Your task to perform on an android device: Go to Maps Image 0: 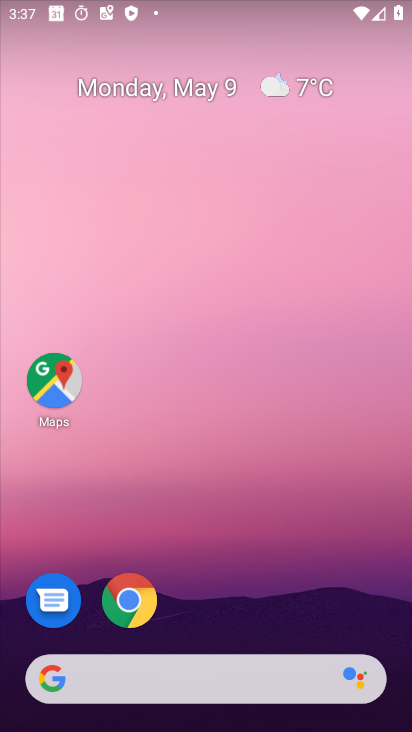
Step 0: drag from (278, 201) to (282, 22)
Your task to perform on an android device: Go to Maps Image 1: 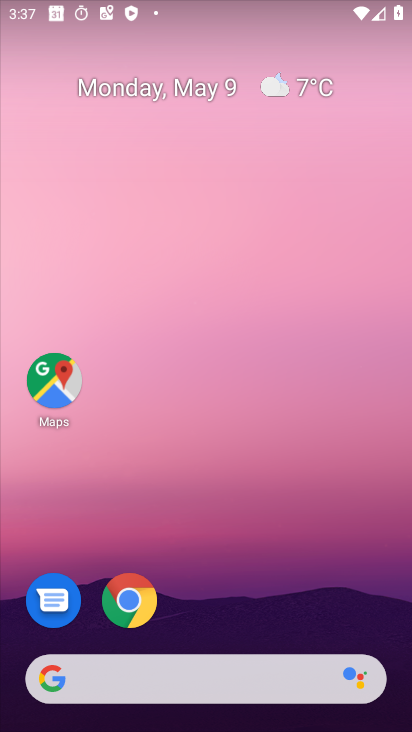
Step 1: drag from (336, 603) to (270, 18)
Your task to perform on an android device: Go to Maps Image 2: 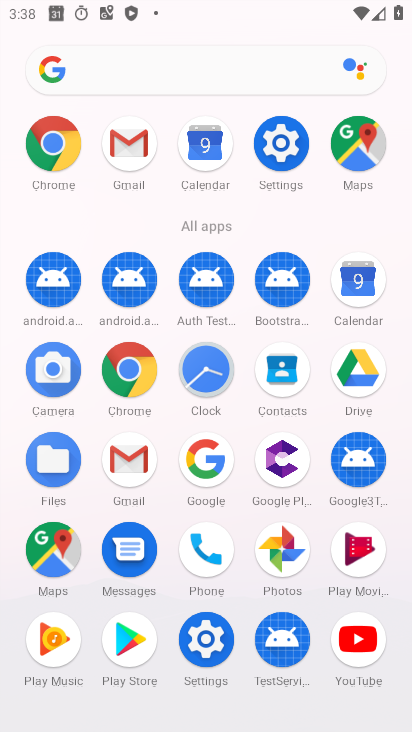
Step 2: drag from (320, 492) to (321, 140)
Your task to perform on an android device: Go to Maps Image 3: 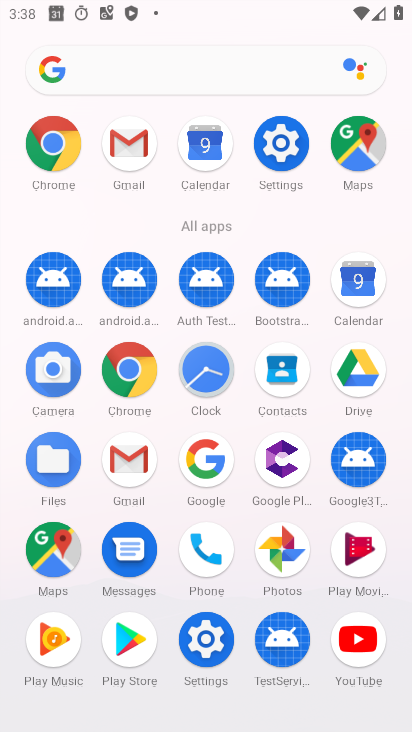
Step 3: click (350, 137)
Your task to perform on an android device: Go to Maps Image 4: 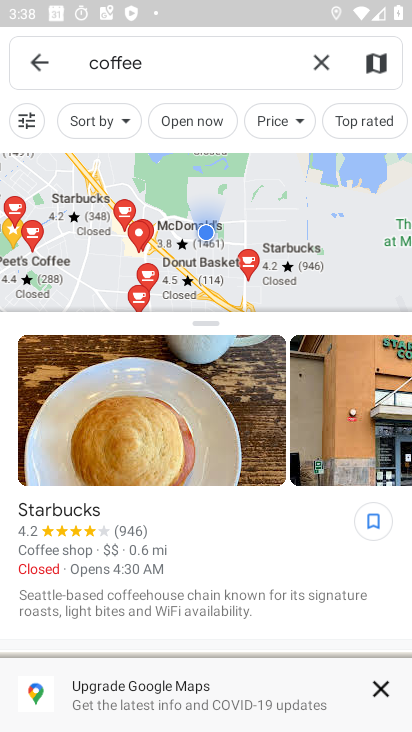
Step 4: task complete